Your task to perform on an android device: delete browsing data in the chrome app Image 0: 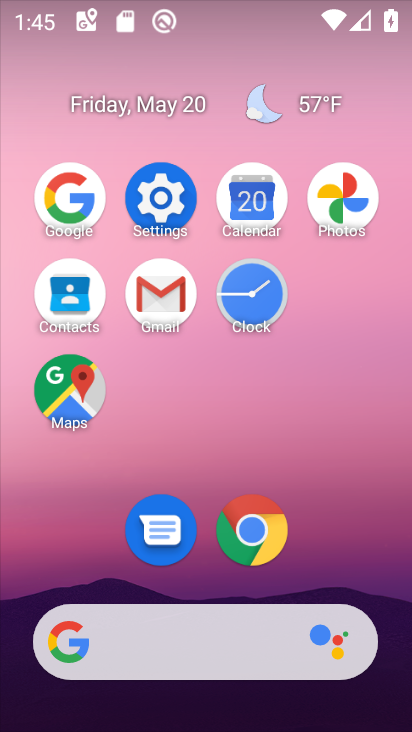
Step 0: click (268, 538)
Your task to perform on an android device: delete browsing data in the chrome app Image 1: 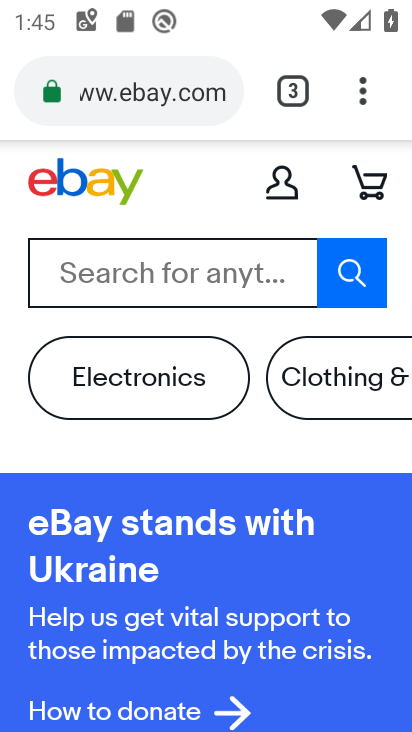
Step 1: click (371, 89)
Your task to perform on an android device: delete browsing data in the chrome app Image 2: 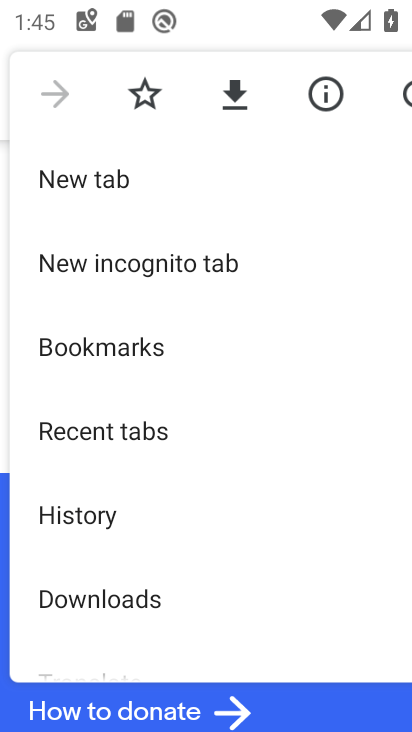
Step 2: drag from (239, 497) to (278, 170)
Your task to perform on an android device: delete browsing data in the chrome app Image 3: 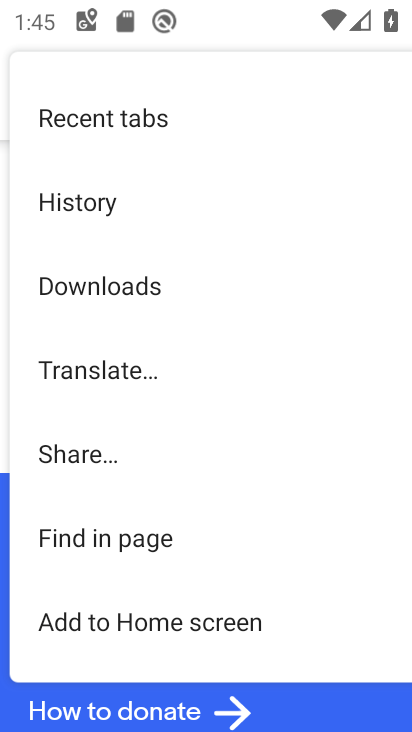
Step 3: drag from (215, 560) to (271, 144)
Your task to perform on an android device: delete browsing data in the chrome app Image 4: 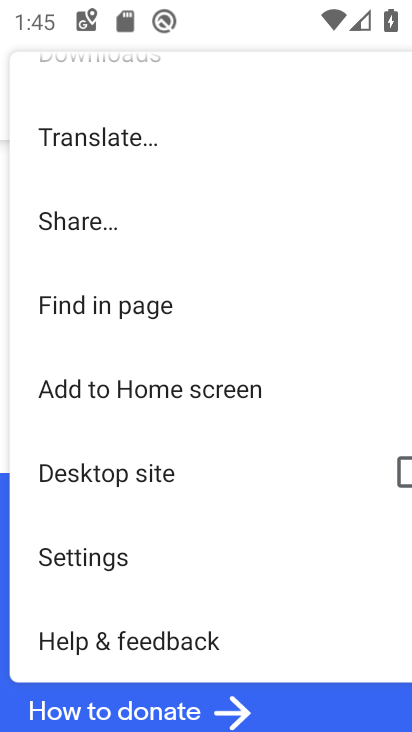
Step 4: click (132, 555)
Your task to perform on an android device: delete browsing data in the chrome app Image 5: 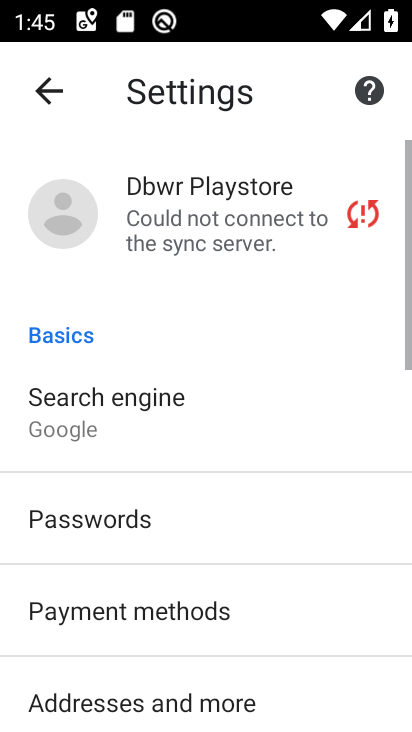
Step 5: drag from (117, 545) to (194, 150)
Your task to perform on an android device: delete browsing data in the chrome app Image 6: 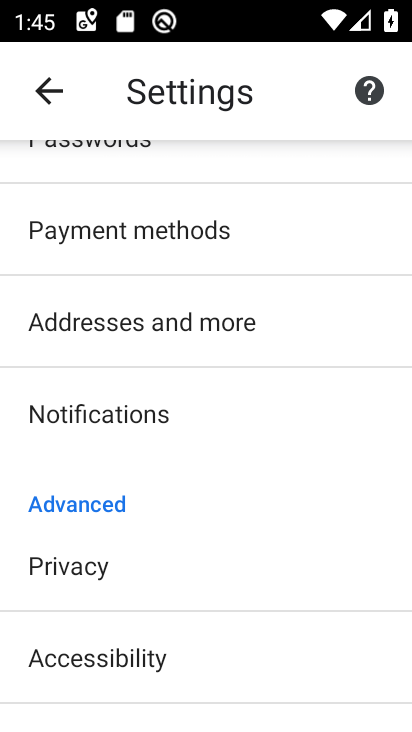
Step 6: drag from (157, 608) to (218, 312)
Your task to perform on an android device: delete browsing data in the chrome app Image 7: 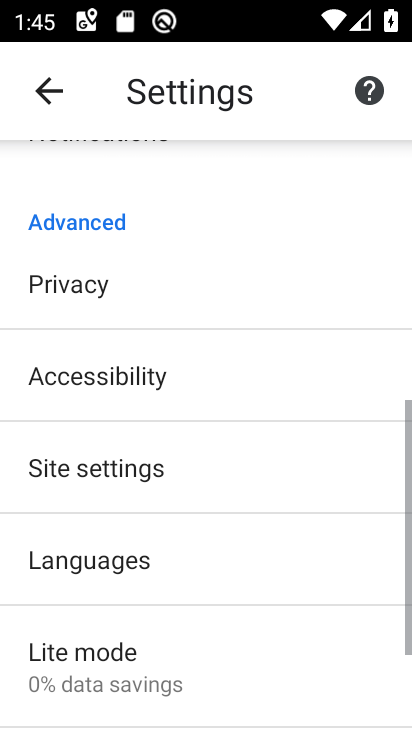
Step 7: click (161, 271)
Your task to perform on an android device: delete browsing data in the chrome app Image 8: 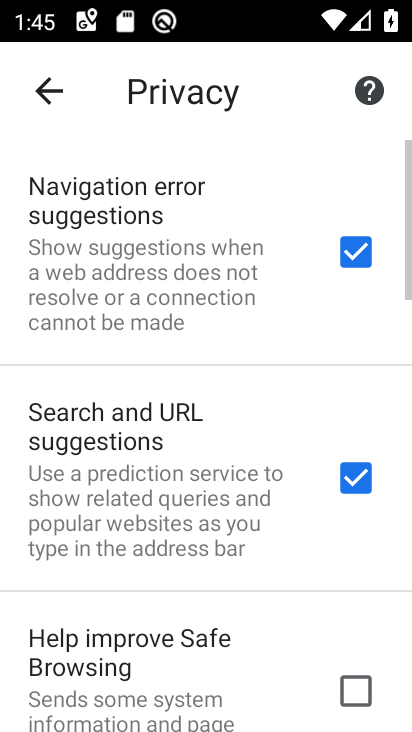
Step 8: drag from (253, 545) to (269, 192)
Your task to perform on an android device: delete browsing data in the chrome app Image 9: 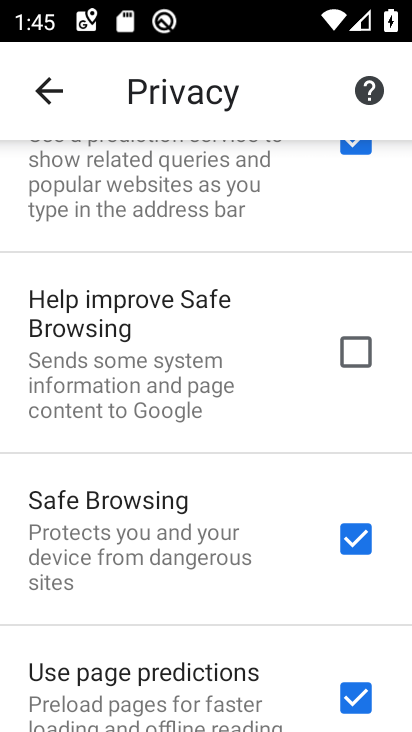
Step 9: drag from (234, 641) to (238, 83)
Your task to perform on an android device: delete browsing data in the chrome app Image 10: 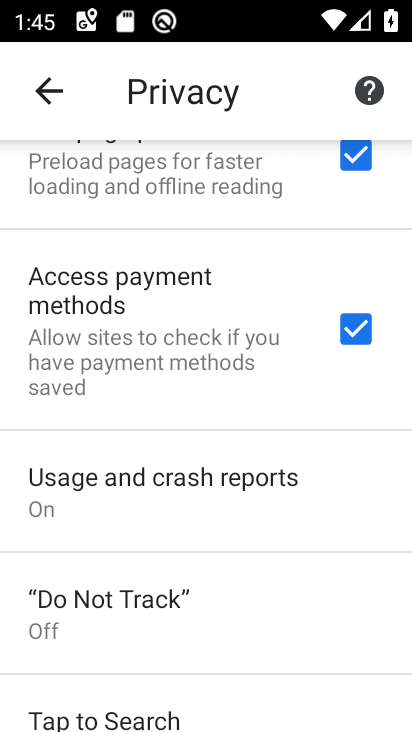
Step 10: drag from (277, 515) to (290, 77)
Your task to perform on an android device: delete browsing data in the chrome app Image 11: 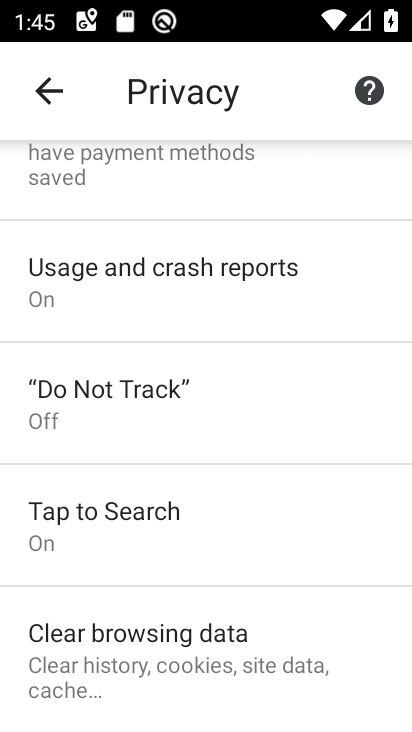
Step 11: click (217, 647)
Your task to perform on an android device: delete browsing data in the chrome app Image 12: 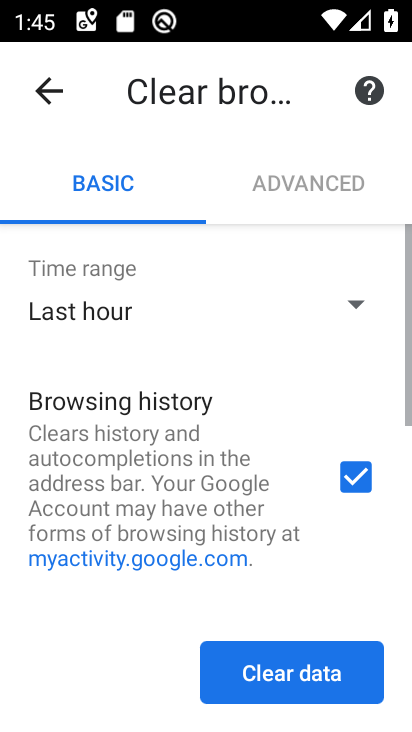
Step 12: drag from (201, 542) to (197, 93)
Your task to perform on an android device: delete browsing data in the chrome app Image 13: 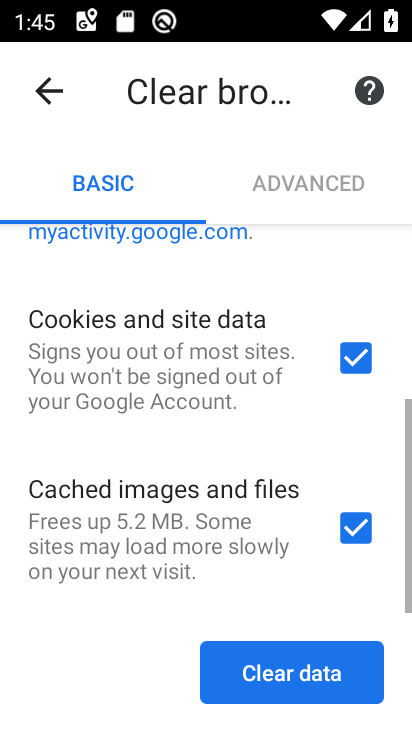
Step 13: click (317, 675)
Your task to perform on an android device: delete browsing data in the chrome app Image 14: 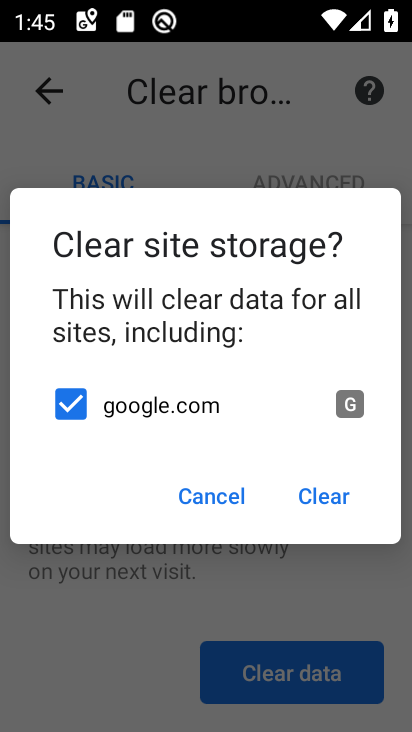
Step 14: click (326, 518)
Your task to perform on an android device: delete browsing data in the chrome app Image 15: 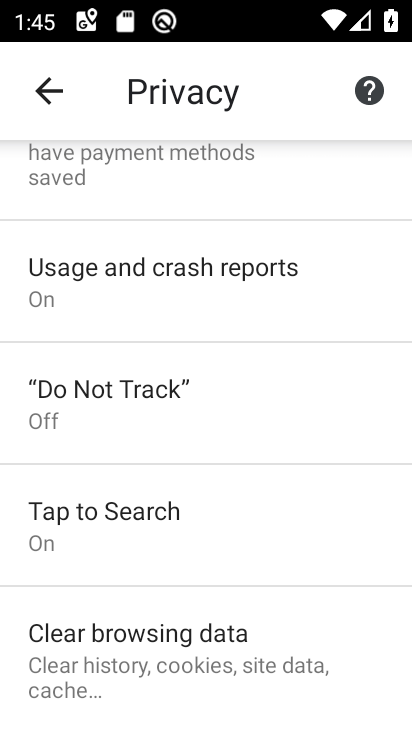
Step 15: task complete